Your task to perform on an android device: Go to battery settings Image 0: 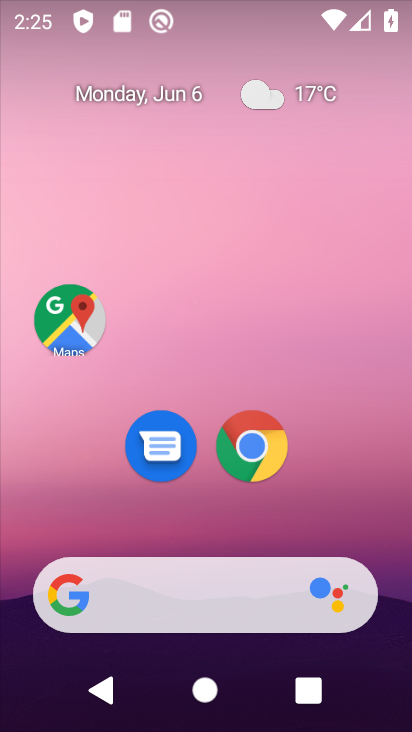
Step 0: drag from (197, 553) to (300, 53)
Your task to perform on an android device: Go to battery settings Image 1: 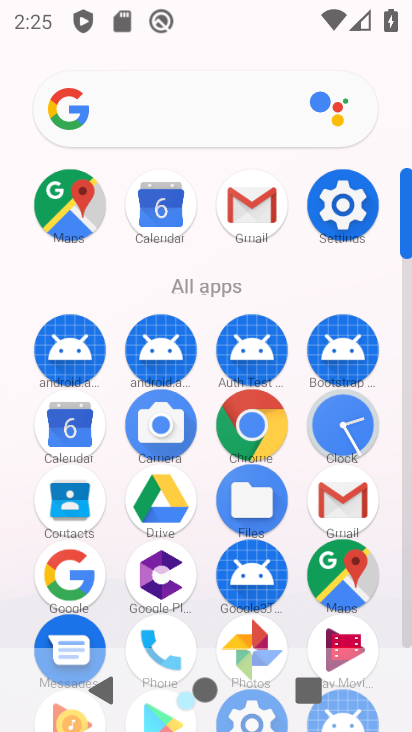
Step 1: click (344, 195)
Your task to perform on an android device: Go to battery settings Image 2: 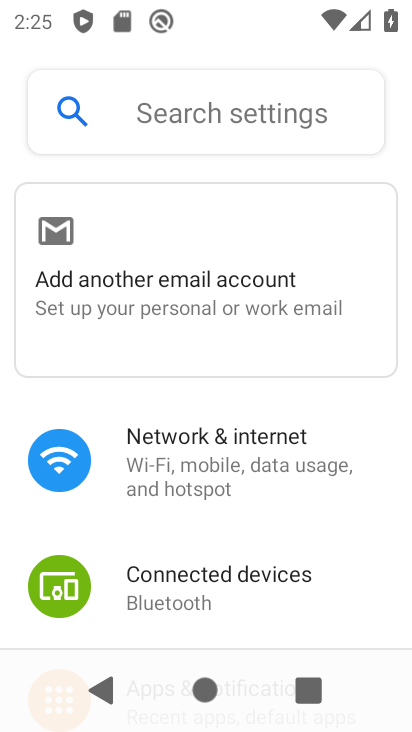
Step 2: drag from (202, 601) to (257, 274)
Your task to perform on an android device: Go to battery settings Image 3: 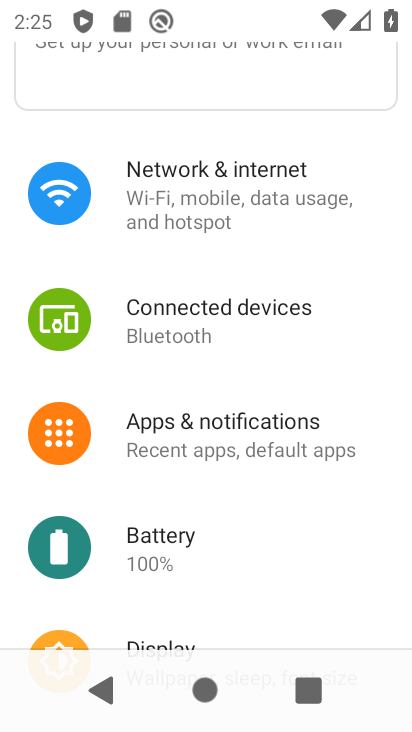
Step 3: click (185, 529)
Your task to perform on an android device: Go to battery settings Image 4: 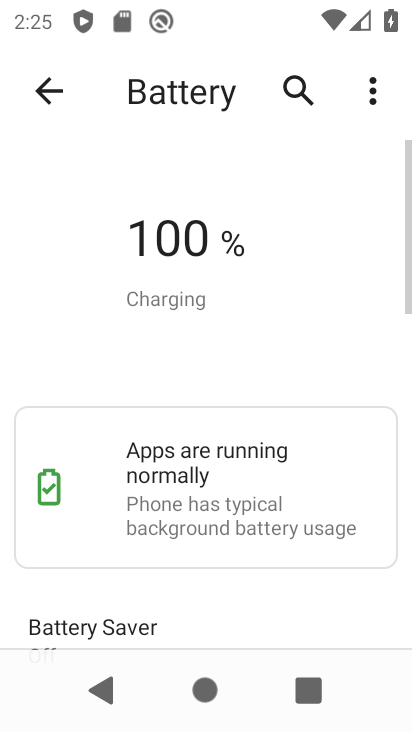
Step 4: task complete